Your task to perform on an android device: What's the news in Puerto Rico? Image 0: 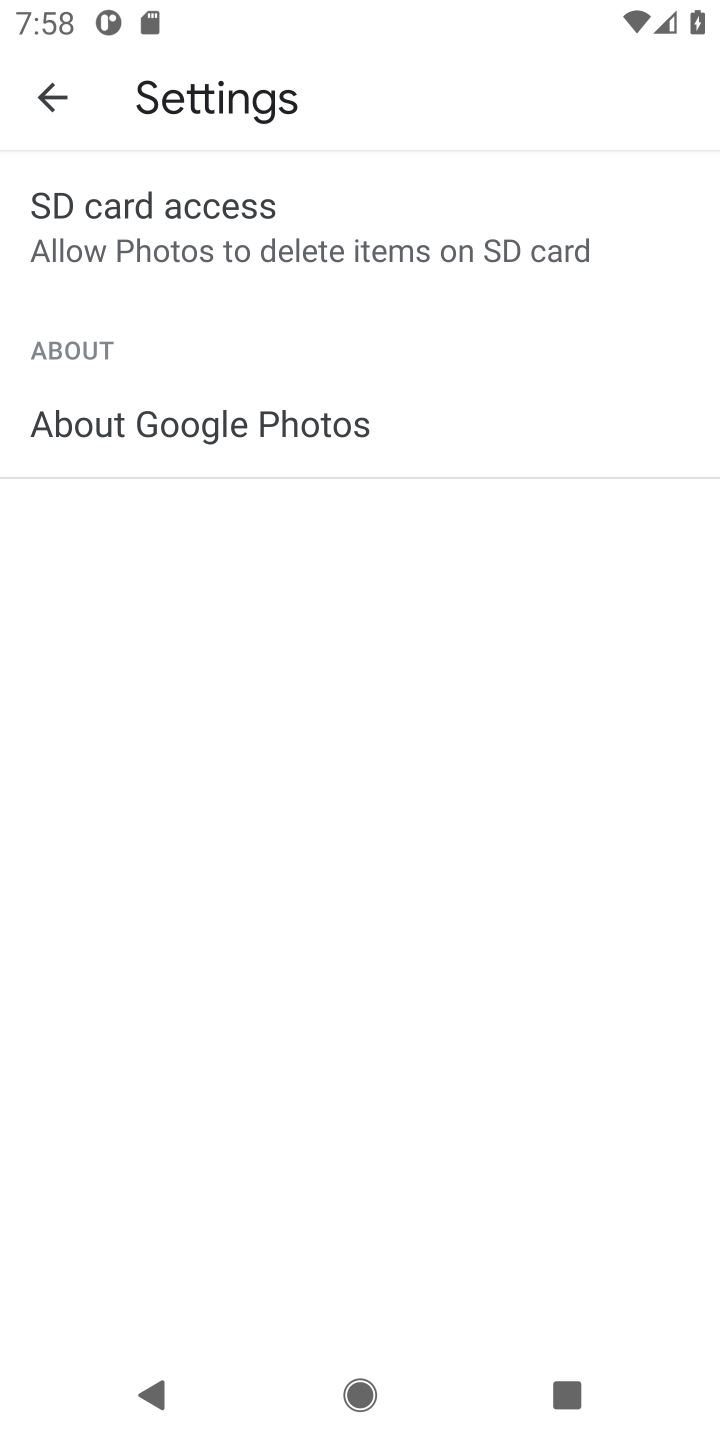
Step 0: press home button
Your task to perform on an android device: What's the news in Puerto Rico? Image 1: 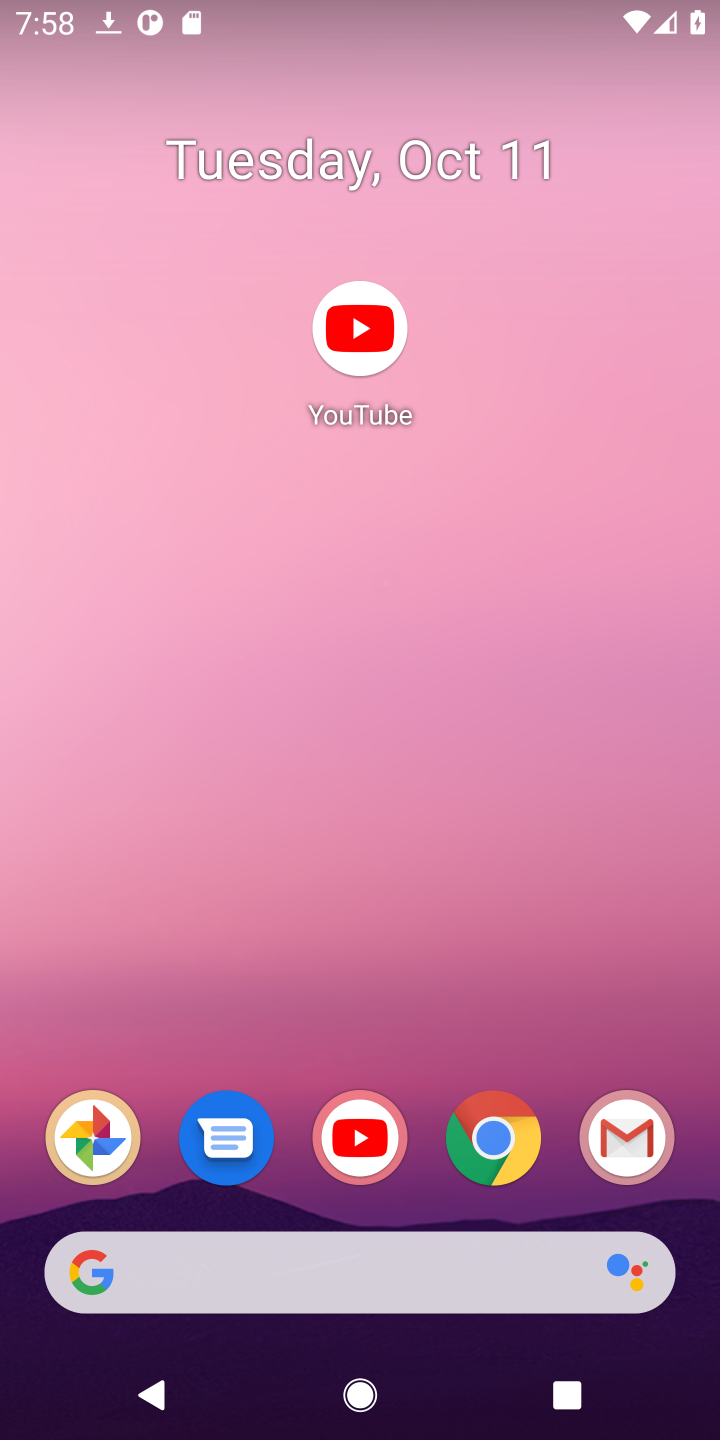
Step 1: click (313, 1281)
Your task to perform on an android device: What's the news in Puerto Rico? Image 2: 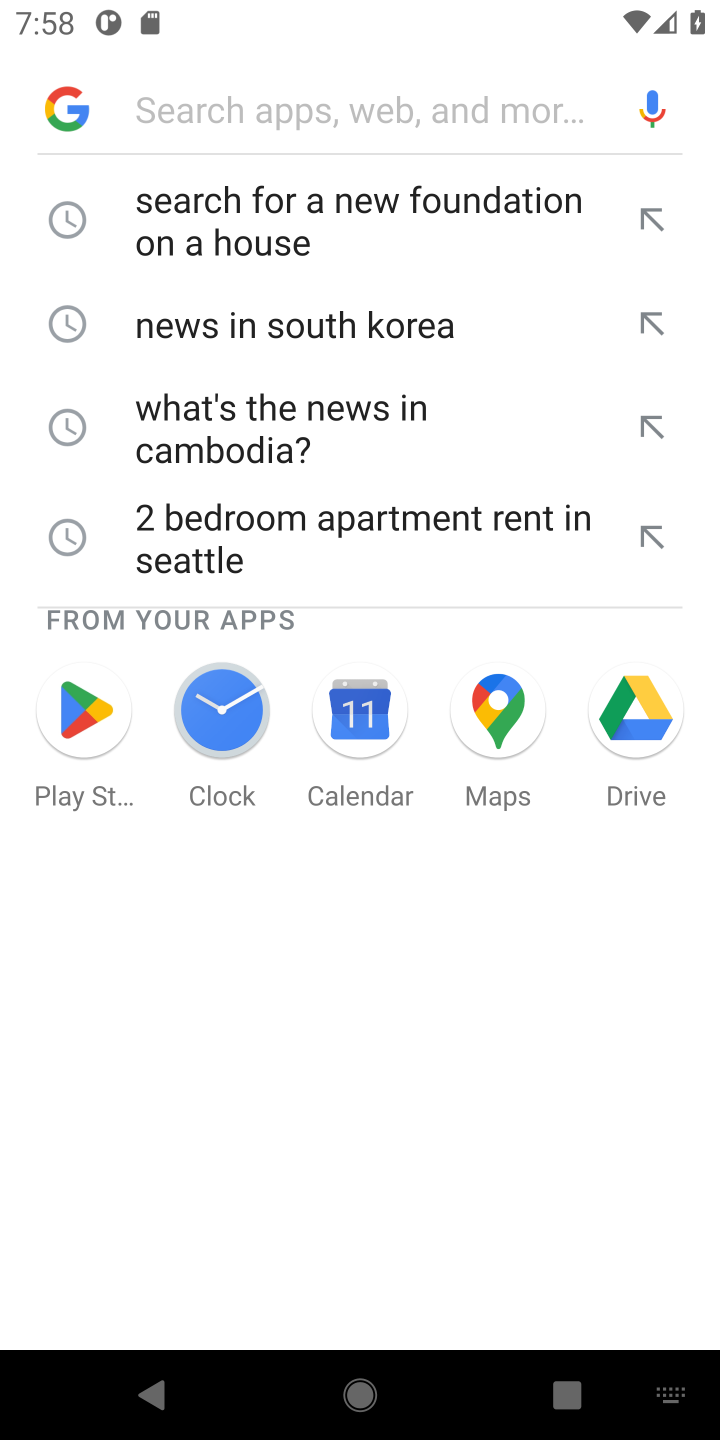
Step 2: type "What's the news in Puerto Rico?"
Your task to perform on an android device: What's the news in Puerto Rico? Image 3: 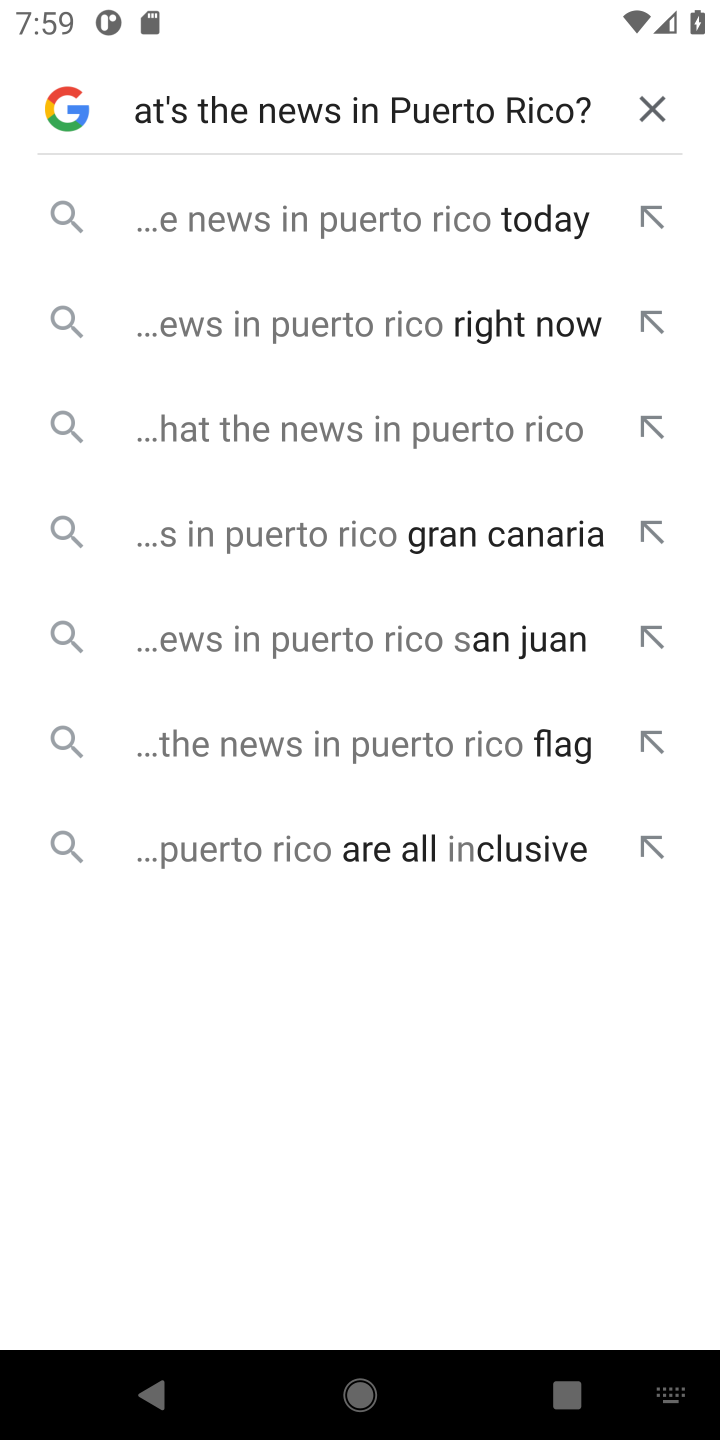
Step 3: click (505, 248)
Your task to perform on an android device: What's the news in Puerto Rico? Image 4: 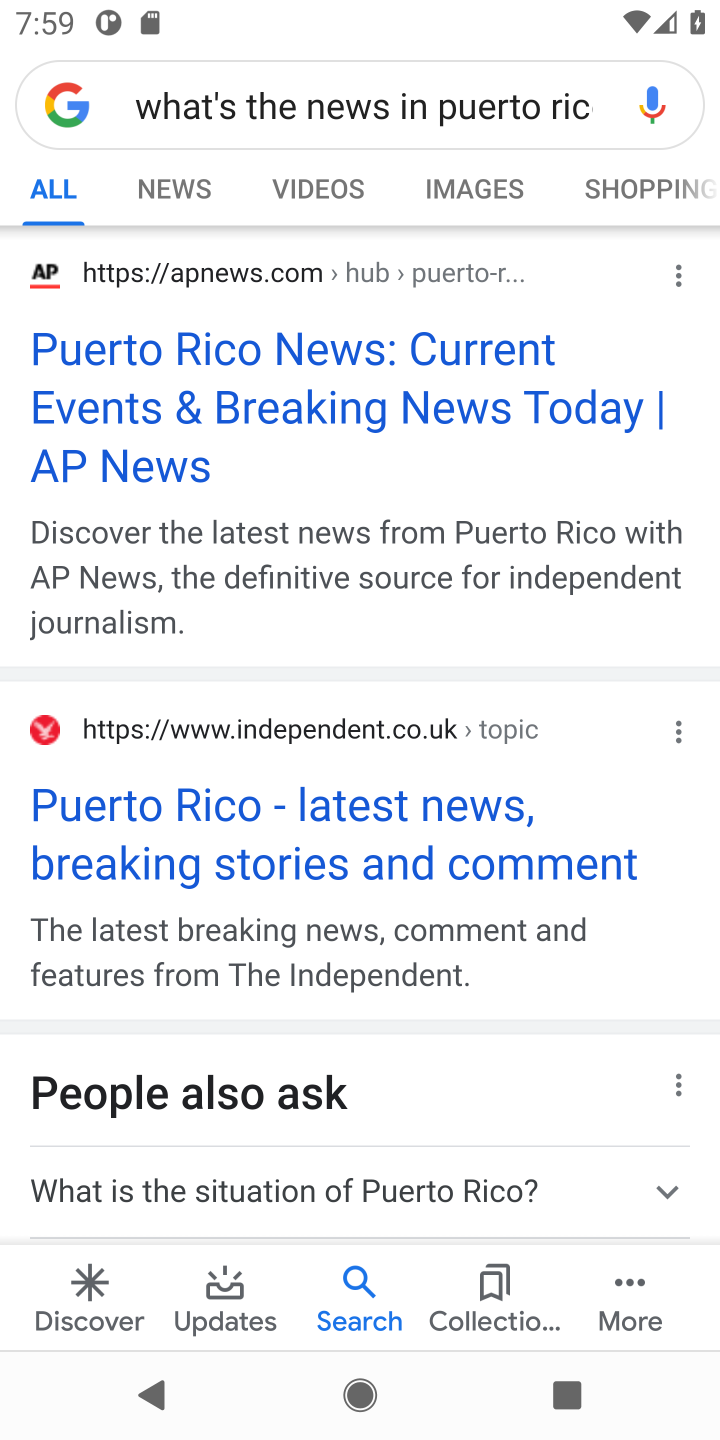
Step 4: click (173, 181)
Your task to perform on an android device: What's the news in Puerto Rico? Image 5: 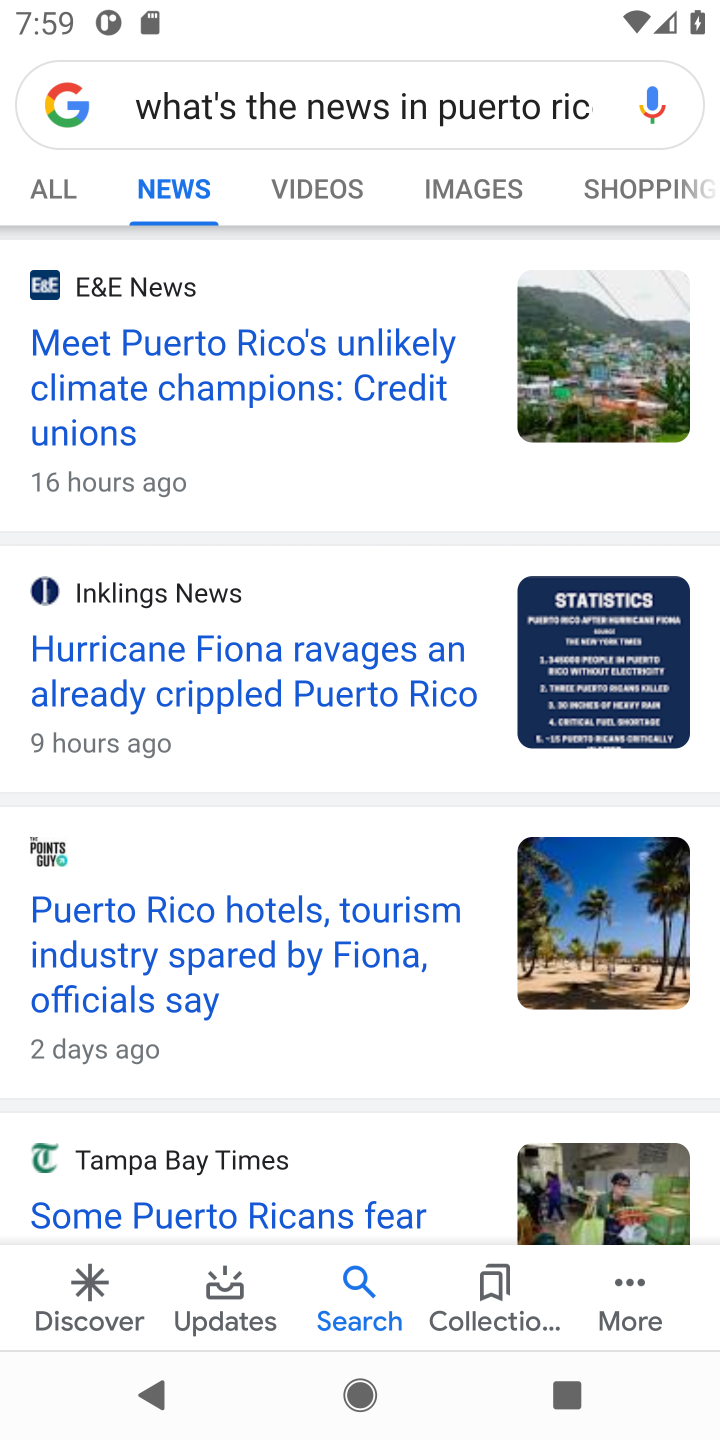
Step 5: task complete